Your task to perform on an android device: turn on wifi Image 0: 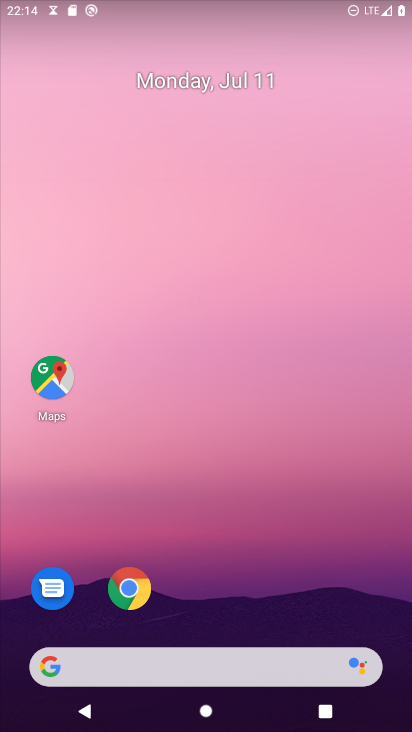
Step 0: press home button
Your task to perform on an android device: turn on wifi Image 1: 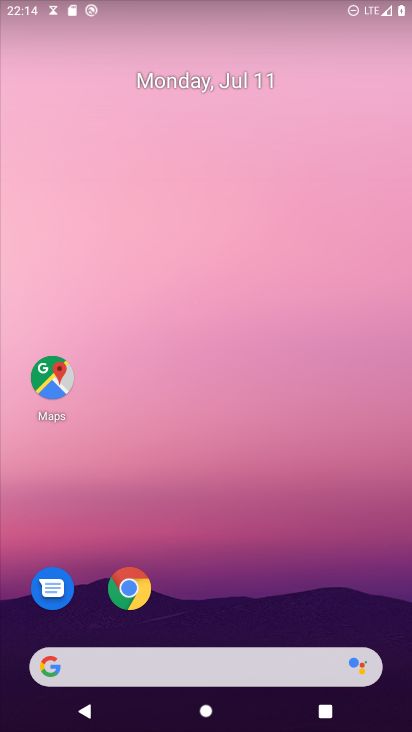
Step 1: drag from (224, 0) to (245, 389)
Your task to perform on an android device: turn on wifi Image 2: 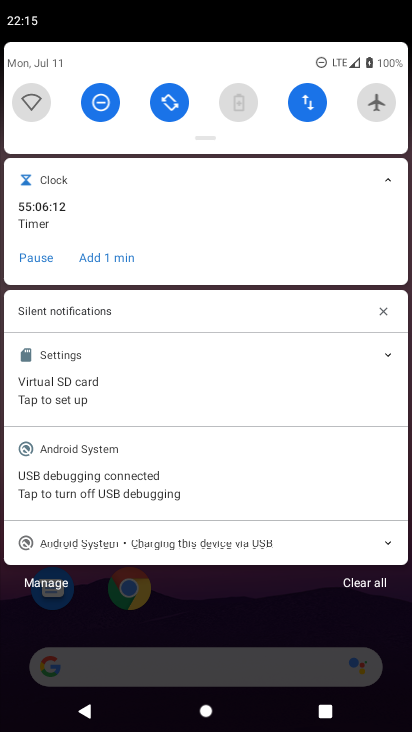
Step 2: click (39, 101)
Your task to perform on an android device: turn on wifi Image 3: 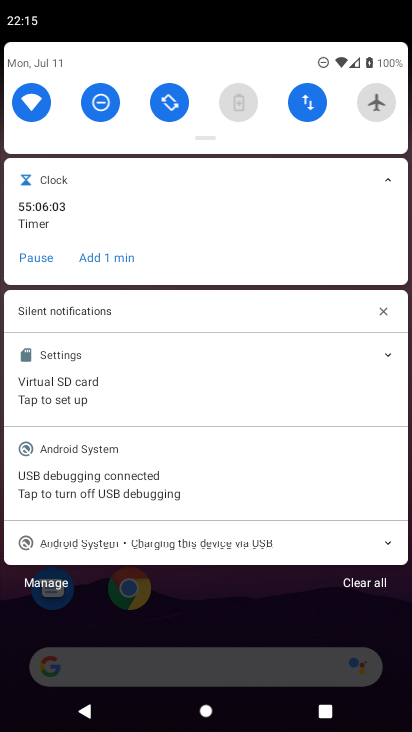
Step 3: task complete